Your task to perform on an android device: Open Google Chrome and click the shortcut for Amazon.com Image 0: 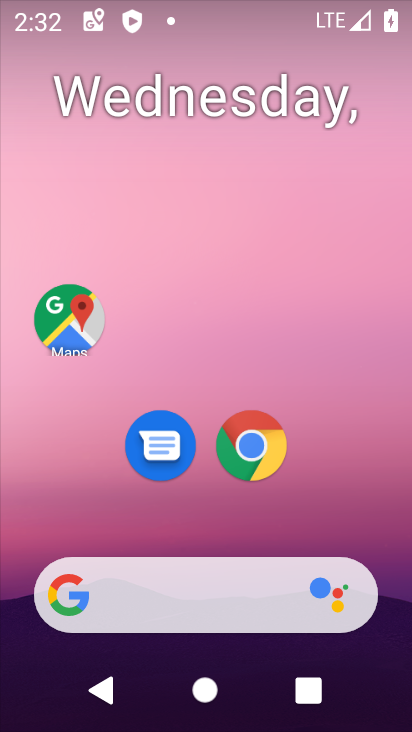
Step 0: click (253, 457)
Your task to perform on an android device: Open Google Chrome and click the shortcut for Amazon.com Image 1: 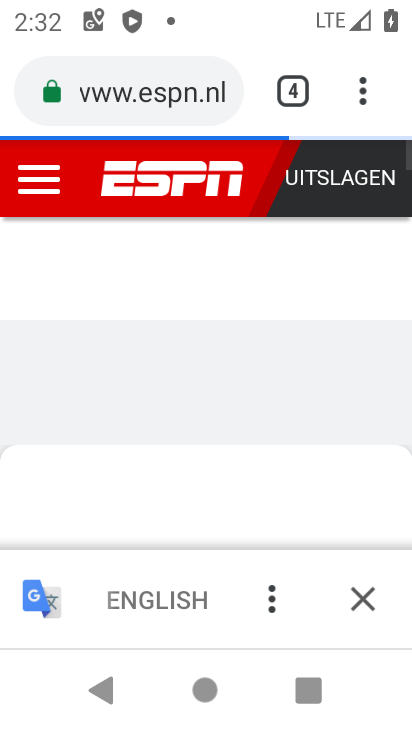
Step 1: click (296, 78)
Your task to perform on an android device: Open Google Chrome and click the shortcut for Amazon.com Image 2: 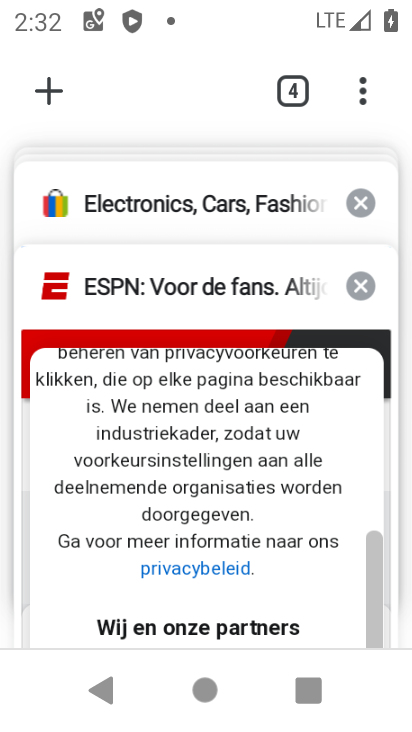
Step 2: drag from (171, 320) to (179, 557)
Your task to perform on an android device: Open Google Chrome and click the shortcut for Amazon.com Image 3: 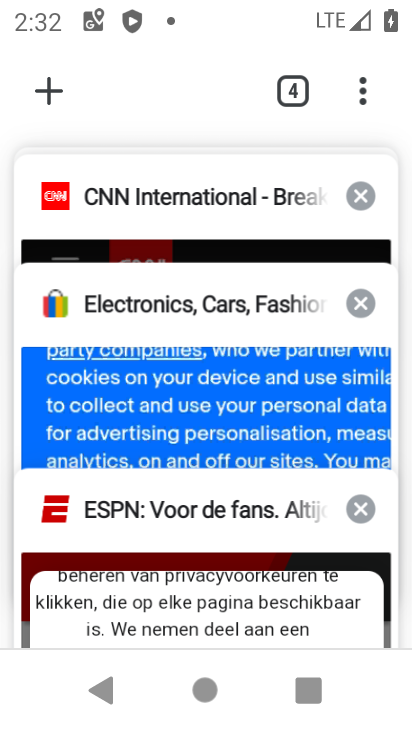
Step 3: drag from (205, 245) to (226, 388)
Your task to perform on an android device: Open Google Chrome and click the shortcut for Amazon.com Image 4: 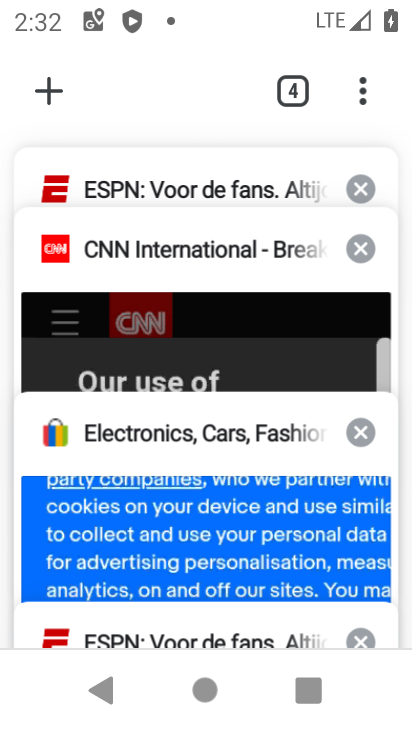
Step 4: drag from (211, 232) to (211, 383)
Your task to perform on an android device: Open Google Chrome and click the shortcut for Amazon.com Image 5: 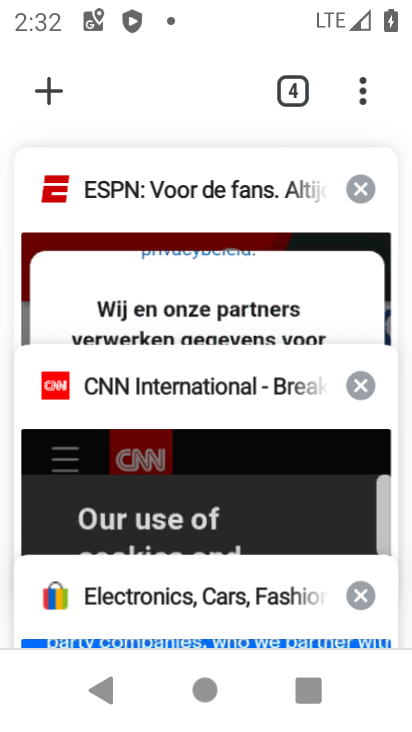
Step 5: drag from (211, 225) to (233, 379)
Your task to perform on an android device: Open Google Chrome and click the shortcut for Amazon.com Image 6: 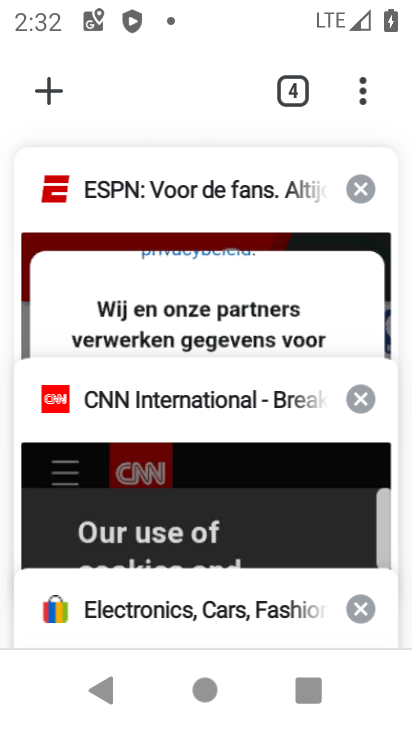
Step 6: drag from (191, 259) to (204, 401)
Your task to perform on an android device: Open Google Chrome and click the shortcut for Amazon.com Image 7: 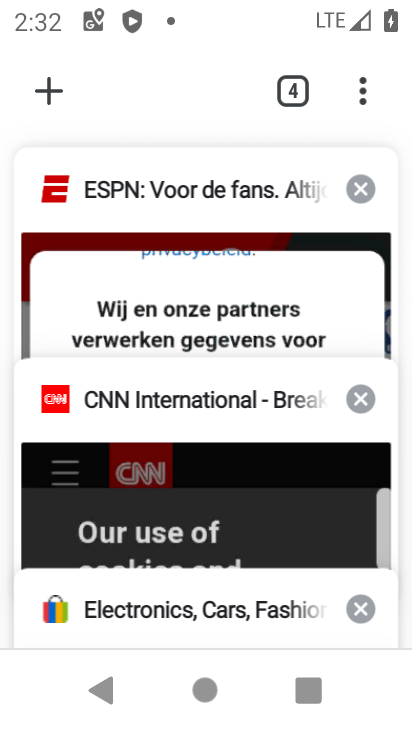
Step 7: drag from (71, 211) to (91, 312)
Your task to perform on an android device: Open Google Chrome and click the shortcut for Amazon.com Image 8: 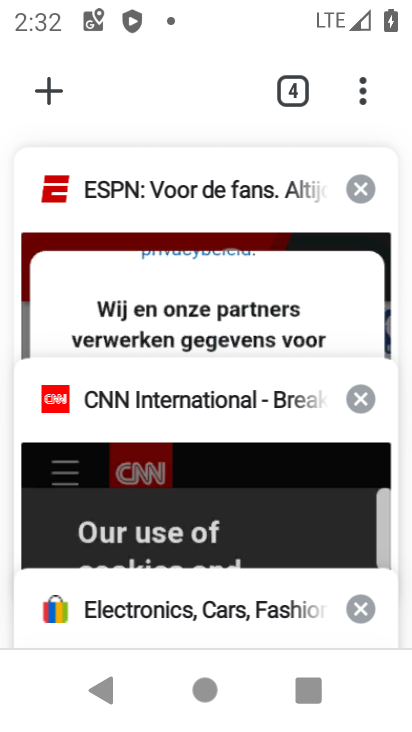
Step 8: click (52, 93)
Your task to perform on an android device: Open Google Chrome and click the shortcut for Amazon.com Image 9: 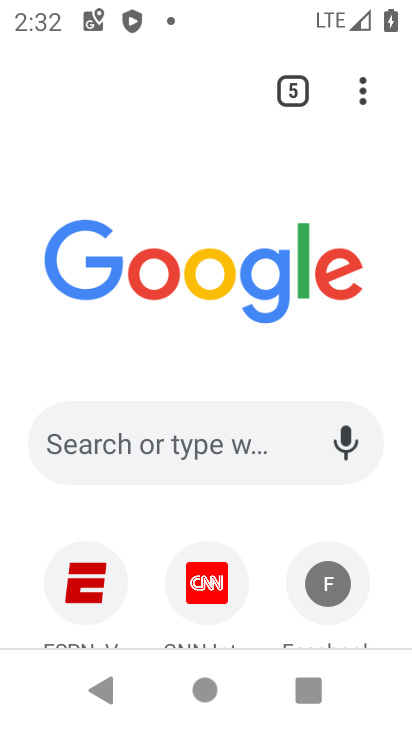
Step 9: drag from (254, 542) to (336, 198)
Your task to perform on an android device: Open Google Chrome and click the shortcut for Amazon.com Image 10: 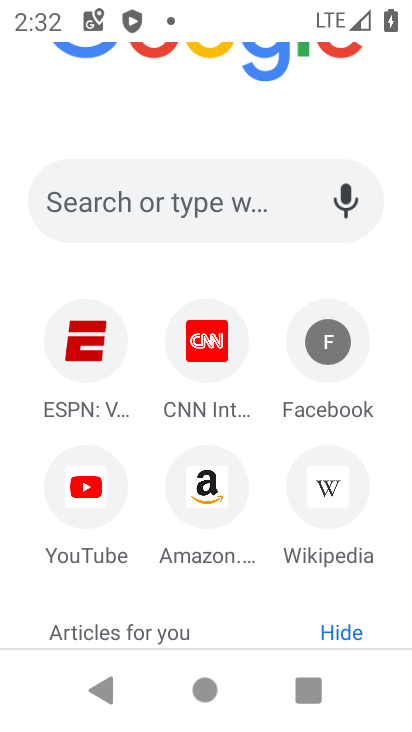
Step 10: click (190, 511)
Your task to perform on an android device: Open Google Chrome and click the shortcut for Amazon.com Image 11: 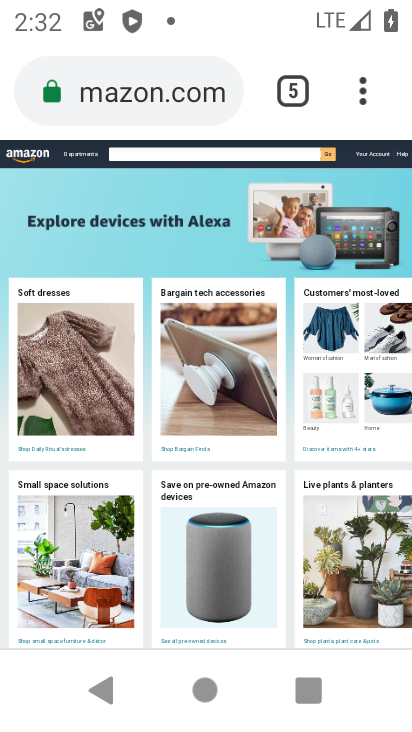
Step 11: task complete